Your task to perform on an android device: set the stopwatch Image 0: 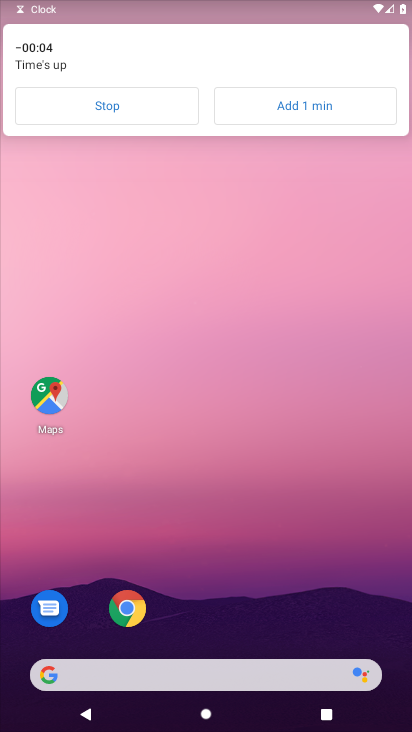
Step 0: click (111, 112)
Your task to perform on an android device: set the stopwatch Image 1: 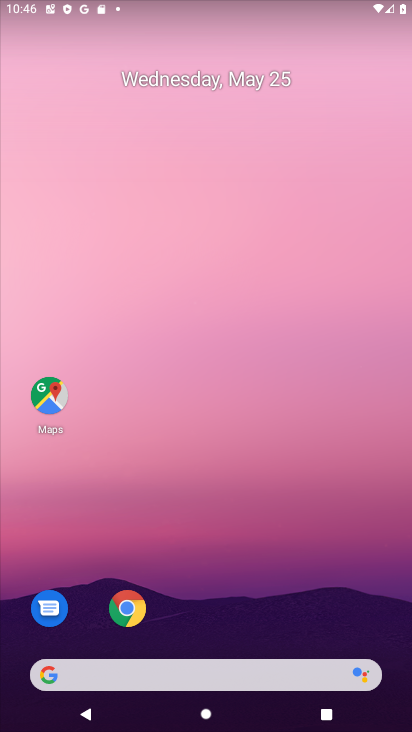
Step 1: drag from (343, 590) to (324, 0)
Your task to perform on an android device: set the stopwatch Image 2: 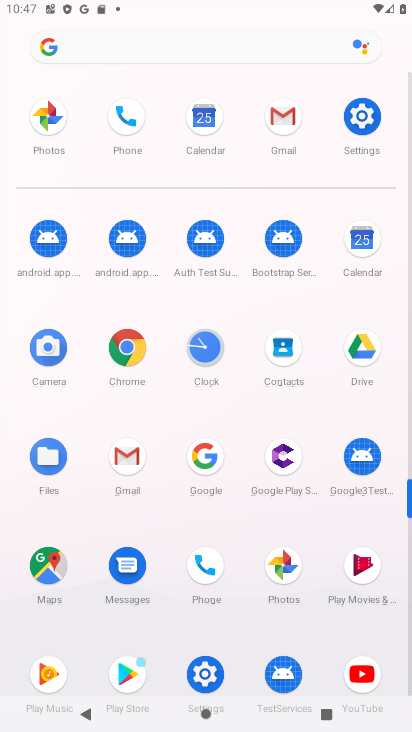
Step 2: click (207, 351)
Your task to perform on an android device: set the stopwatch Image 3: 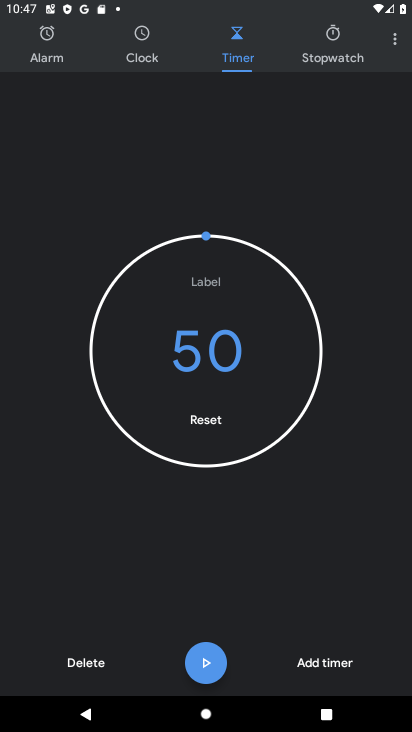
Step 3: click (312, 59)
Your task to perform on an android device: set the stopwatch Image 4: 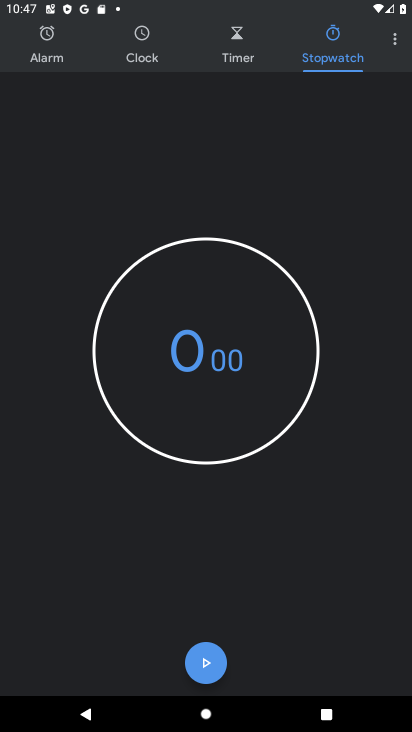
Step 4: click (197, 664)
Your task to perform on an android device: set the stopwatch Image 5: 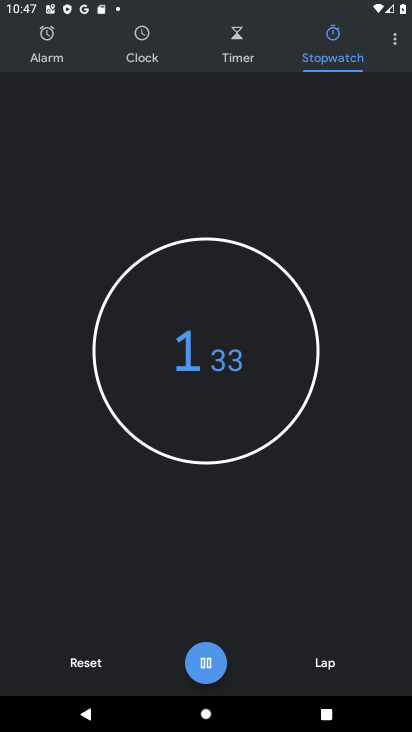
Step 5: click (196, 665)
Your task to perform on an android device: set the stopwatch Image 6: 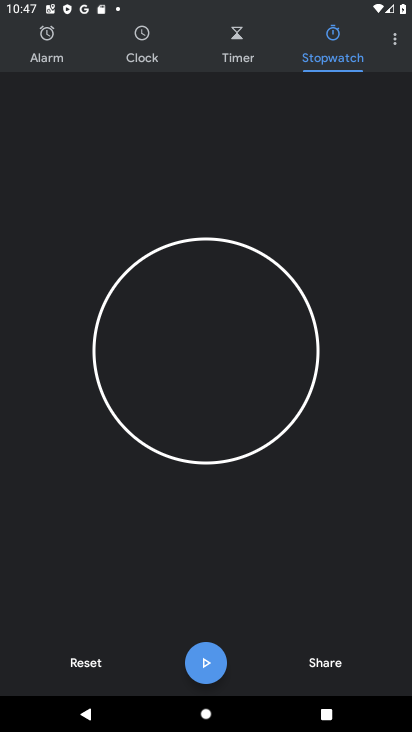
Step 6: task complete